Your task to perform on an android device: Open Maps and search for coffee Image 0: 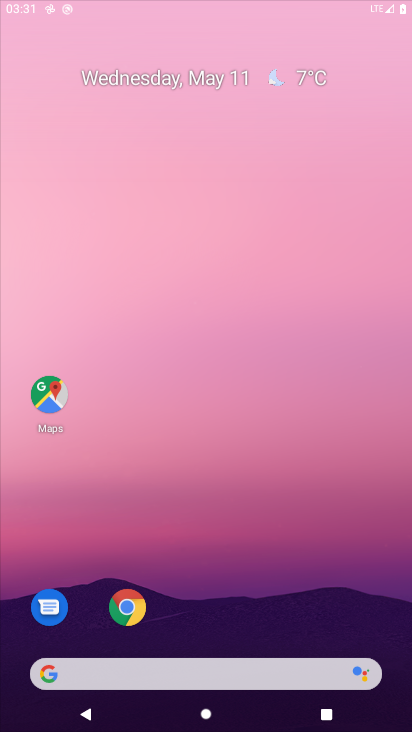
Step 0: press home button
Your task to perform on an android device: Open Maps and search for coffee Image 1: 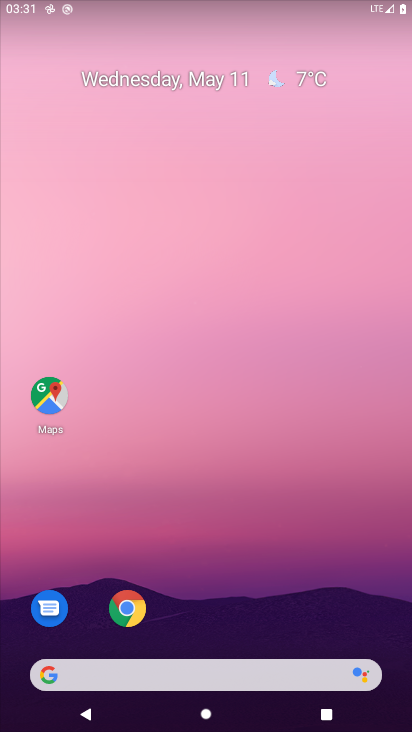
Step 1: drag from (209, 618) to (232, 31)
Your task to perform on an android device: Open Maps and search for coffee Image 2: 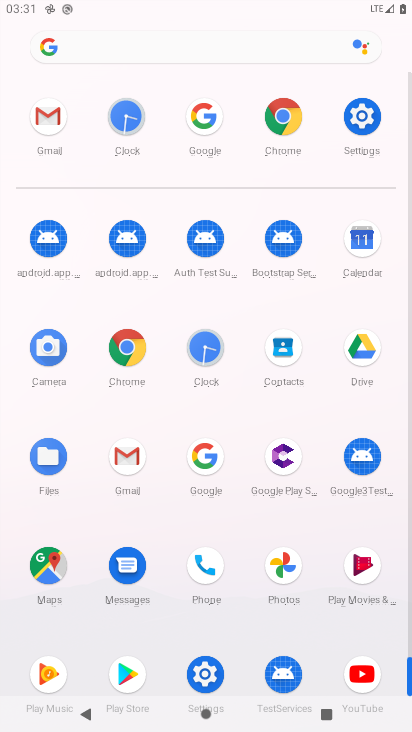
Step 2: click (42, 563)
Your task to perform on an android device: Open Maps and search for coffee Image 3: 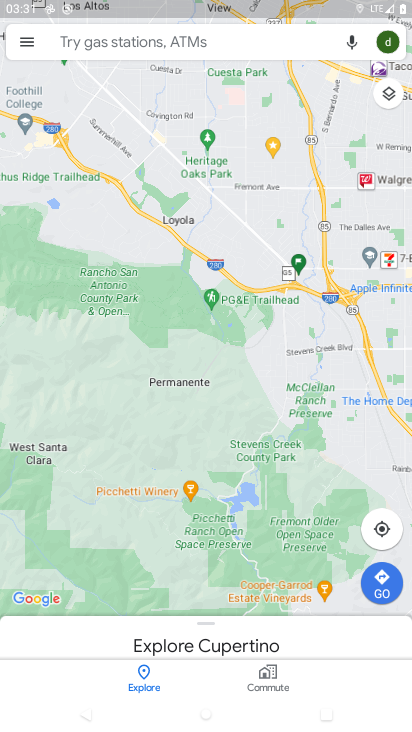
Step 3: click (142, 43)
Your task to perform on an android device: Open Maps and search for coffee Image 4: 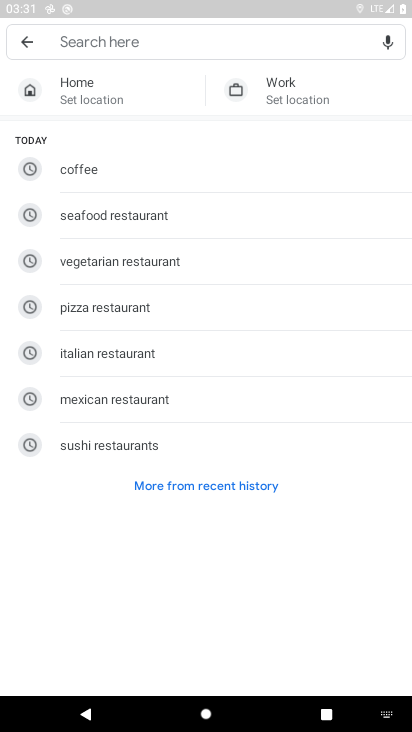
Step 4: type "coffee"
Your task to perform on an android device: Open Maps and search for coffee Image 5: 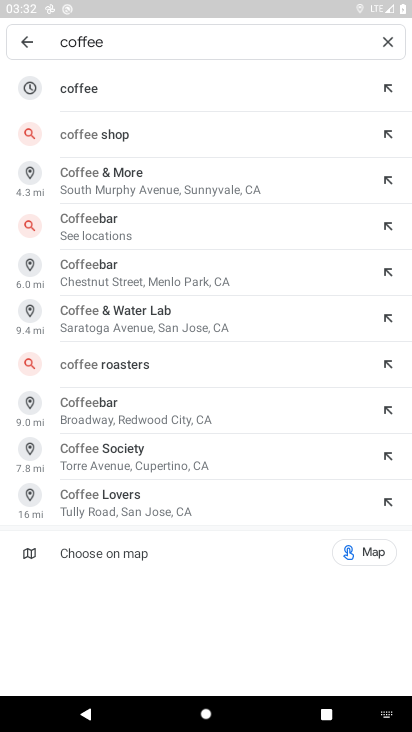
Step 5: click (102, 84)
Your task to perform on an android device: Open Maps and search for coffee Image 6: 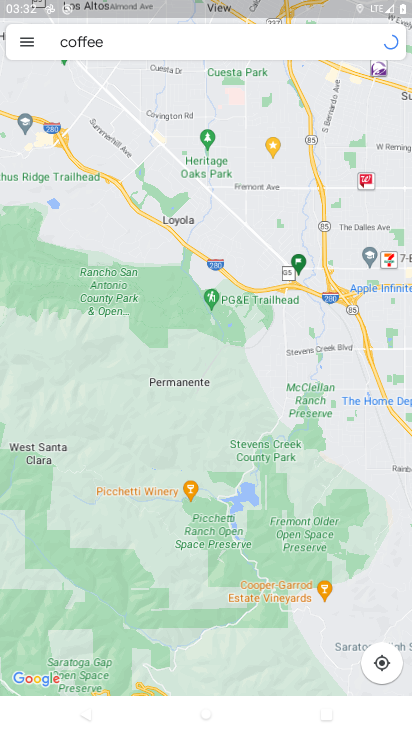
Step 6: task complete